Your task to perform on an android device: Check the news Image 0: 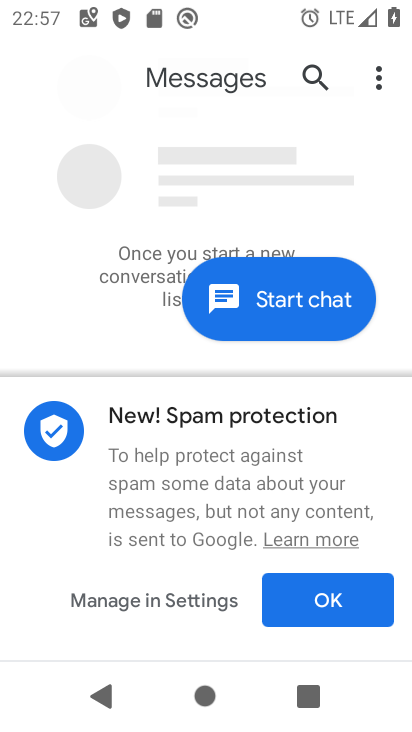
Step 0: press back button
Your task to perform on an android device: Check the news Image 1: 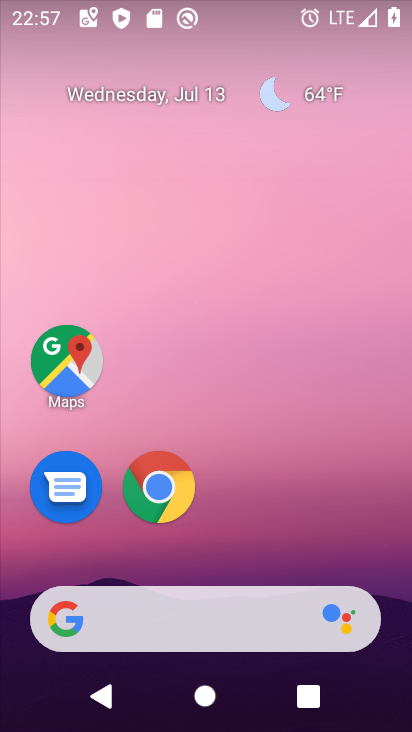
Step 1: click (196, 607)
Your task to perform on an android device: Check the news Image 2: 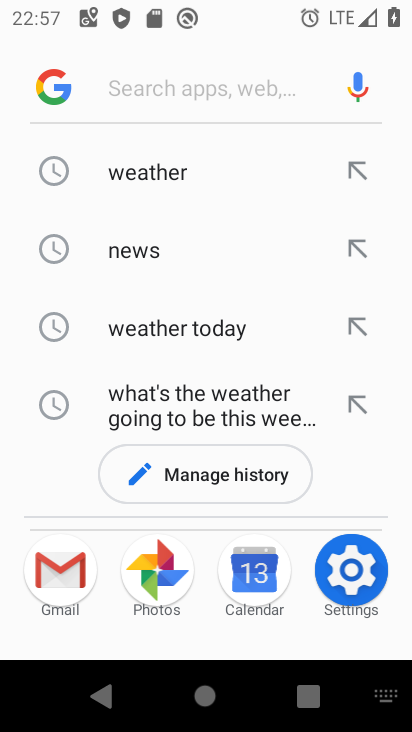
Step 2: click (133, 248)
Your task to perform on an android device: Check the news Image 3: 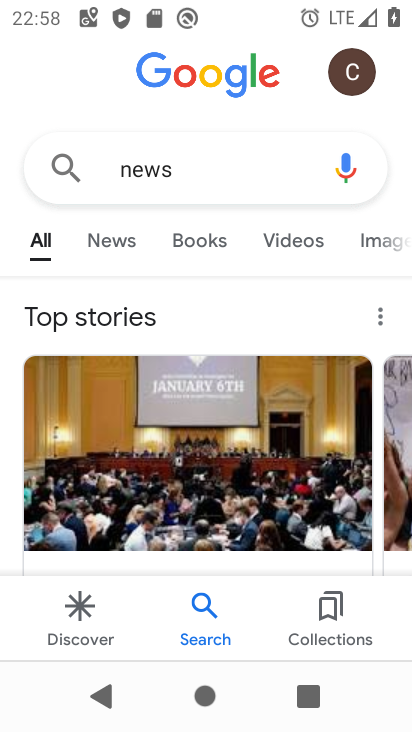
Step 3: task complete